Your task to perform on an android device: open app "Expedia: Hotels, Flights & Car" Image 0: 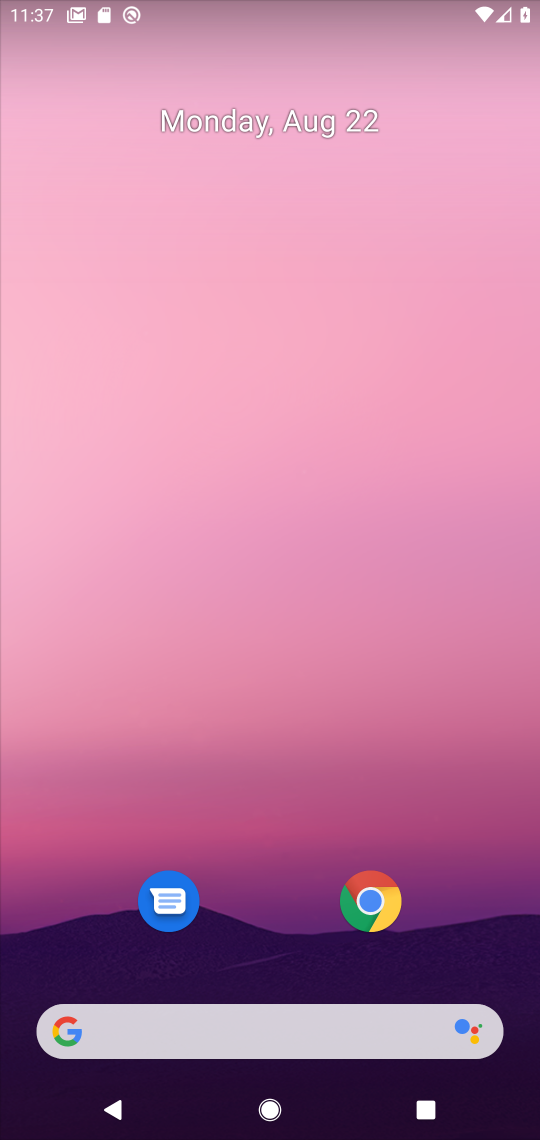
Step 0: drag from (283, 891) to (373, 1)
Your task to perform on an android device: open app "Expedia: Hotels, Flights & Car" Image 1: 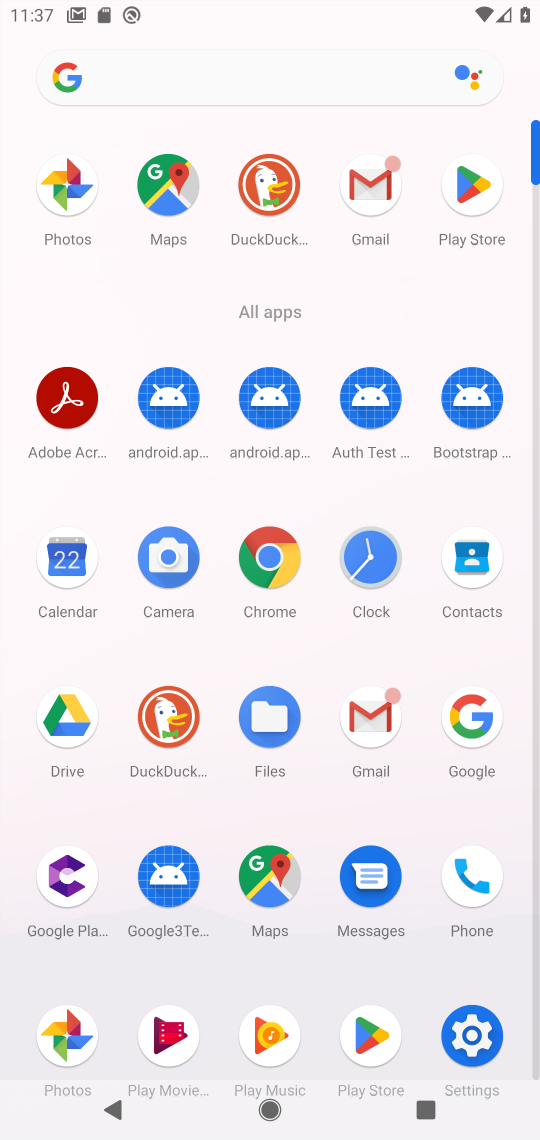
Step 1: click (478, 183)
Your task to perform on an android device: open app "Expedia: Hotels, Flights & Car" Image 2: 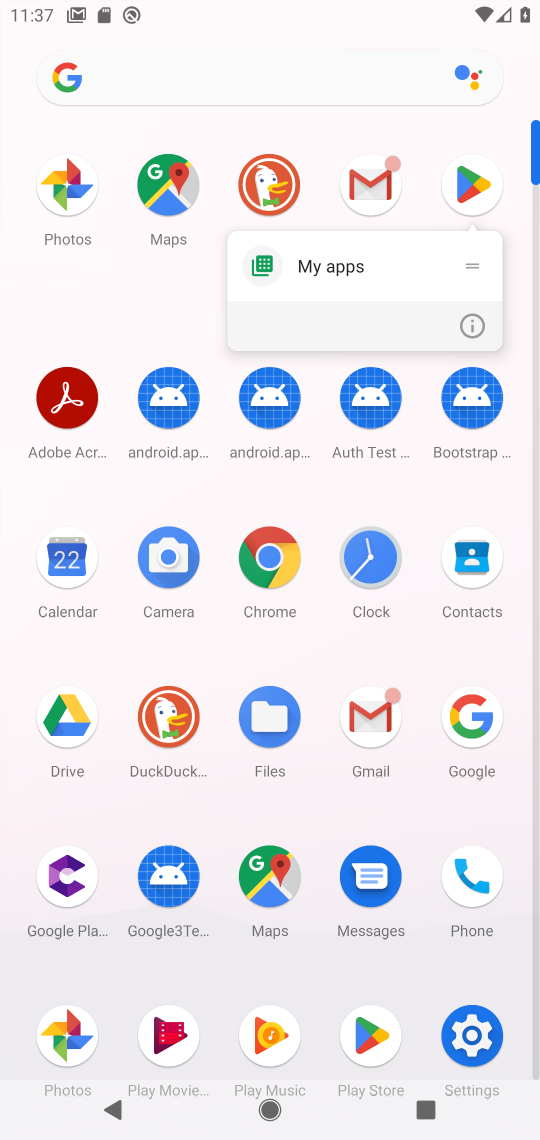
Step 2: click (473, 186)
Your task to perform on an android device: open app "Expedia: Hotels, Flights & Car" Image 3: 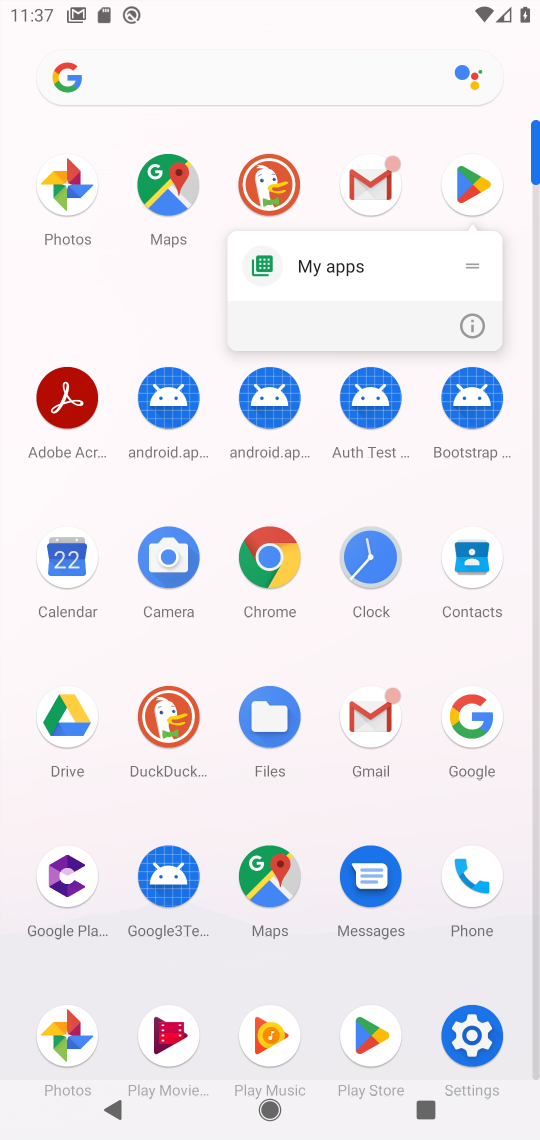
Step 3: click (476, 190)
Your task to perform on an android device: open app "Expedia: Hotels, Flights & Car" Image 4: 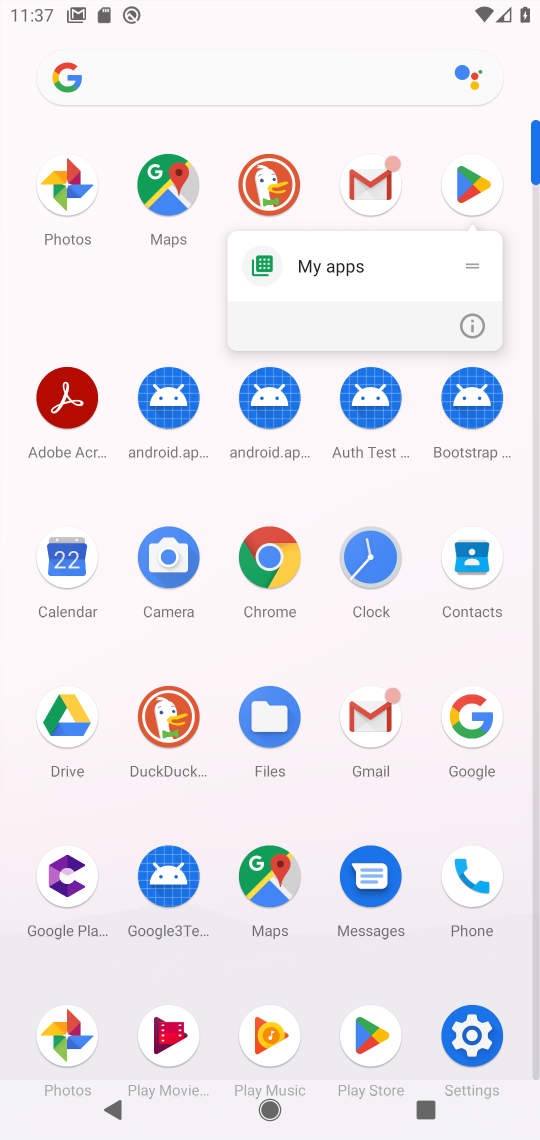
Step 4: click (476, 190)
Your task to perform on an android device: open app "Expedia: Hotels, Flights & Car" Image 5: 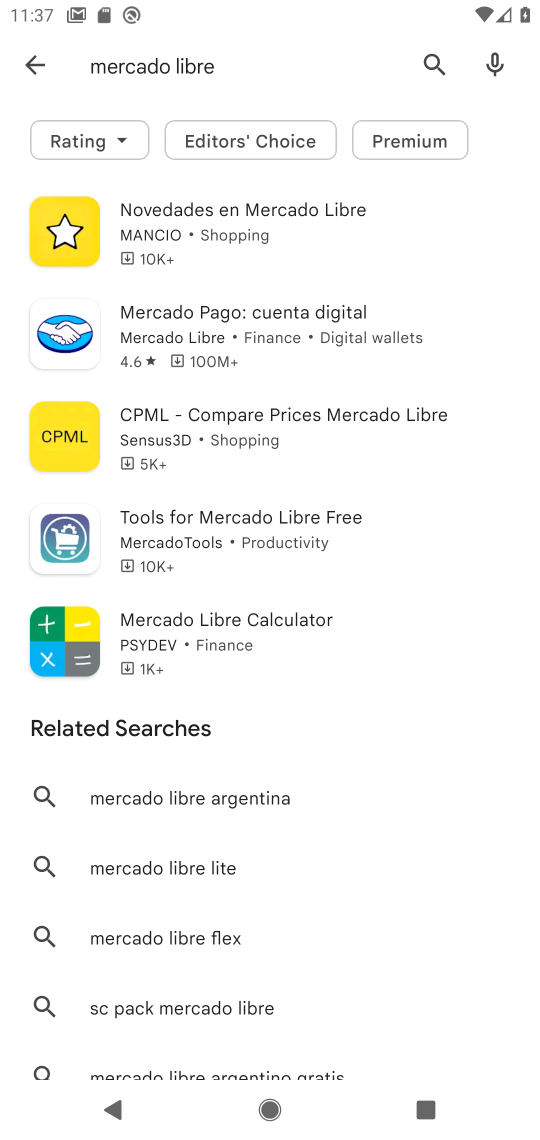
Step 5: click (224, 43)
Your task to perform on an android device: open app "Expedia: Hotels, Flights & Car" Image 6: 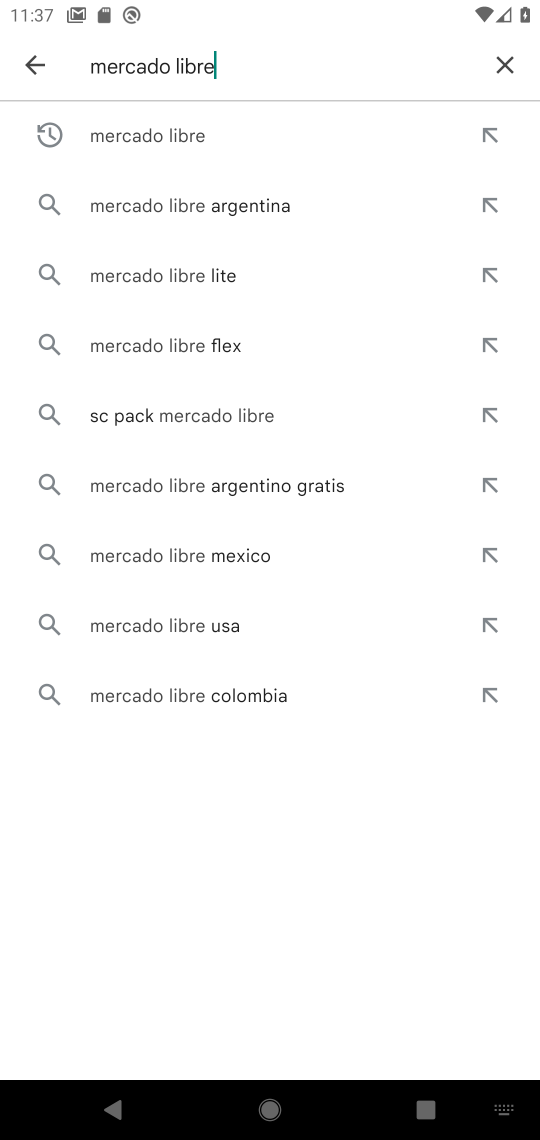
Step 6: click (504, 55)
Your task to perform on an android device: open app "Expedia: Hotels, Flights & Car" Image 7: 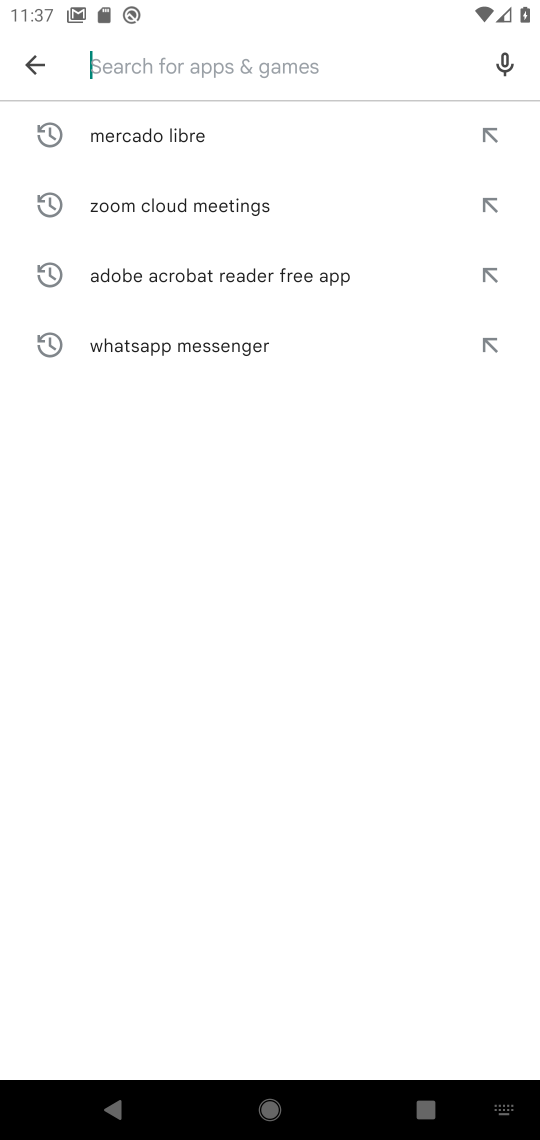
Step 7: type "expedia"
Your task to perform on an android device: open app "Expedia: Hotels, Flights & Car" Image 8: 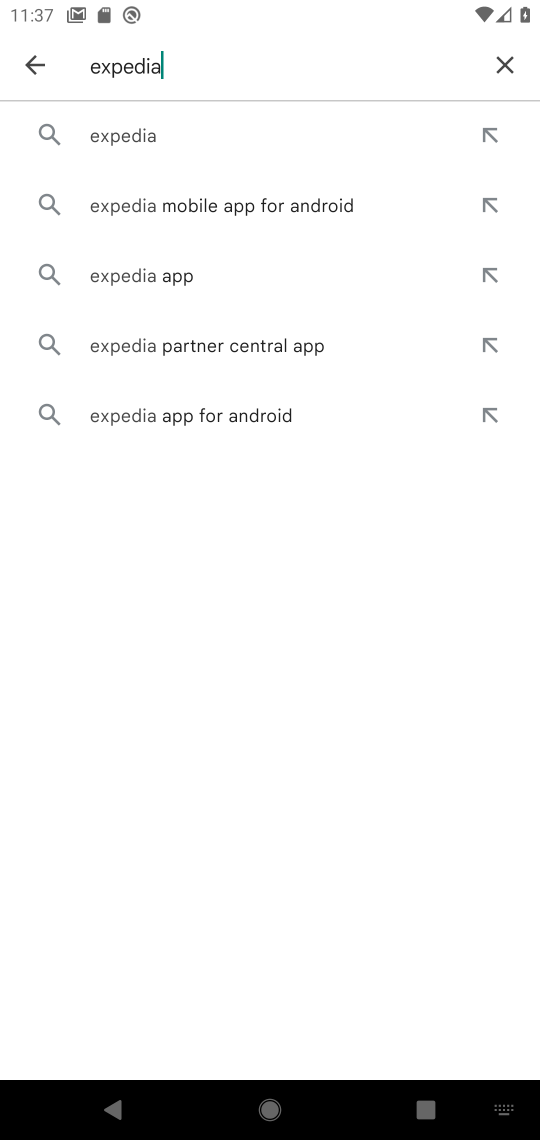
Step 8: click (192, 123)
Your task to perform on an android device: open app "Expedia: Hotels, Flights & Car" Image 9: 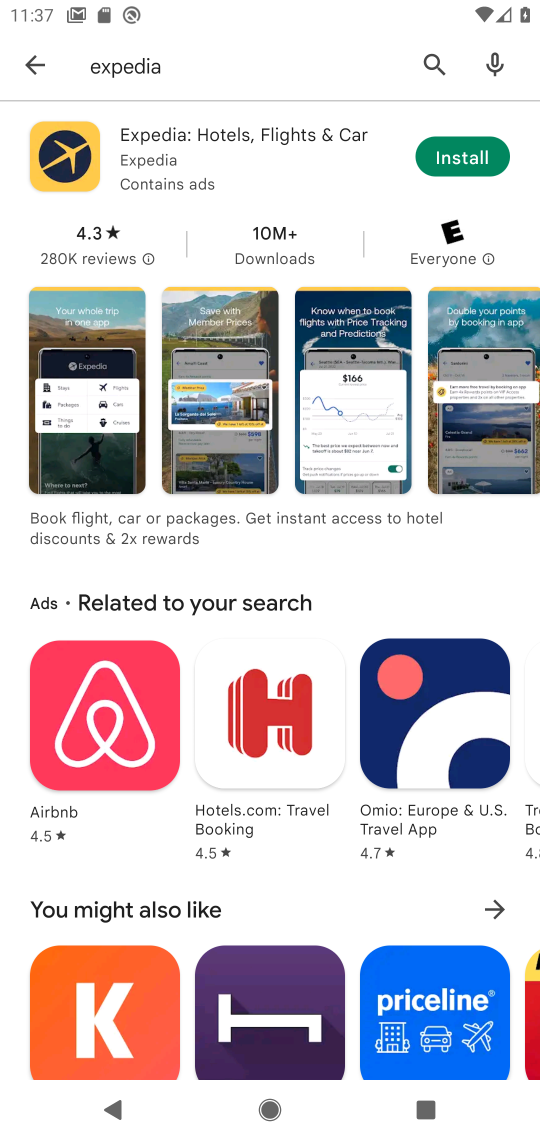
Step 9: task complete